Your task to perform on an android device: Go to calendar. Show me events next week Image 0: 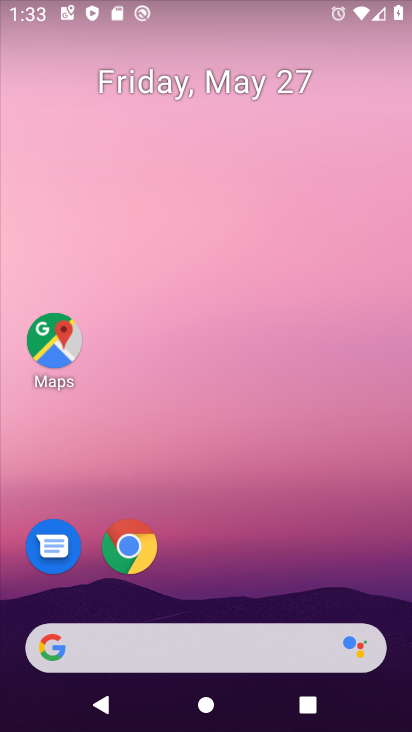
Step 0: drag from (304, 666) to (384, 240)
Your task to perform on an android device: Go to calendar. Show me events next week Image 1: 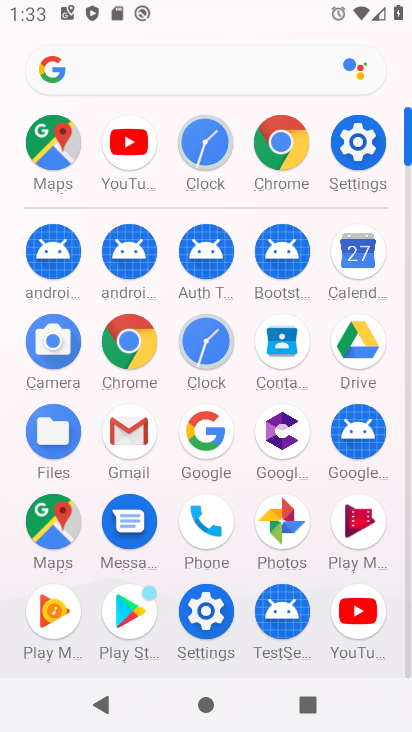
Step 1: click (370, 271)
Your task to perform on an android device: Go to calendar. Show me events next week Image 2: 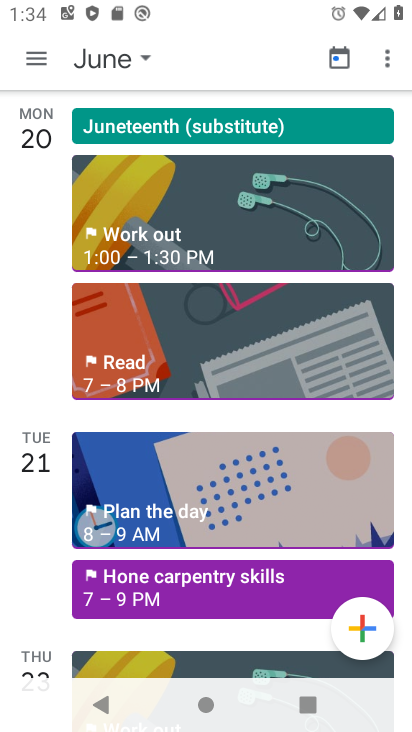
Step 2: click (33, 73)
Your task to perform on an android device: Go to calendar. Show me events next week Image 3: 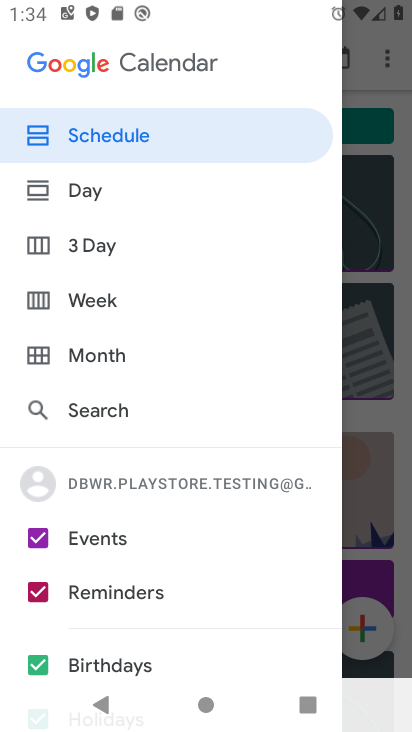
Step 3: click (100, 358)
Your task to perform on an android device: Go to calendar. Show me events next week Image 4: 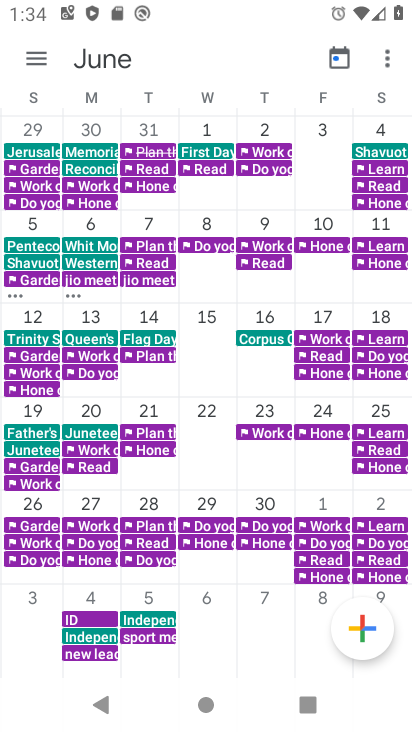
Step 4: click (87, 139)
Your task to perform on an android device: Go to calendar. Show me events next week Image 5: 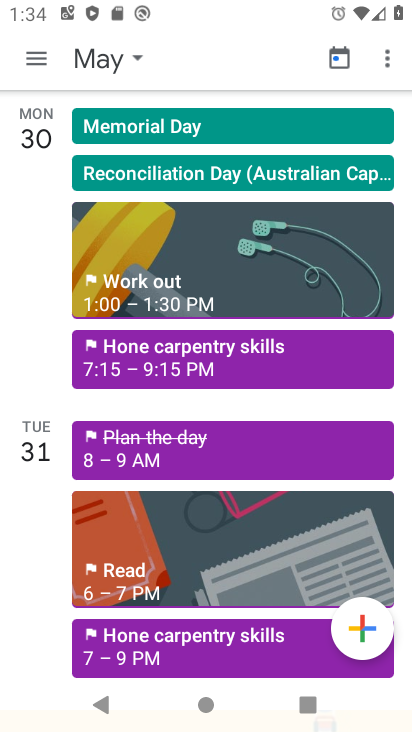
Step 5: task complete